Your task to perform on an android device: Open the stopwatch Image 0: 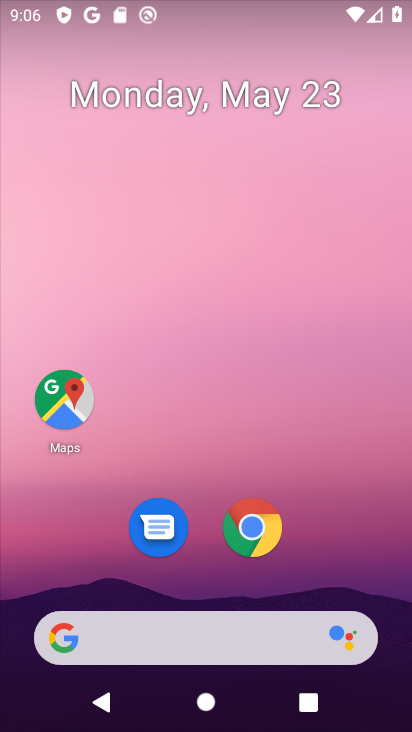
Step 0: drag from (350, 583) to (298, 200)
Your task to perform on an android device: Open the stopwatch Image 1: 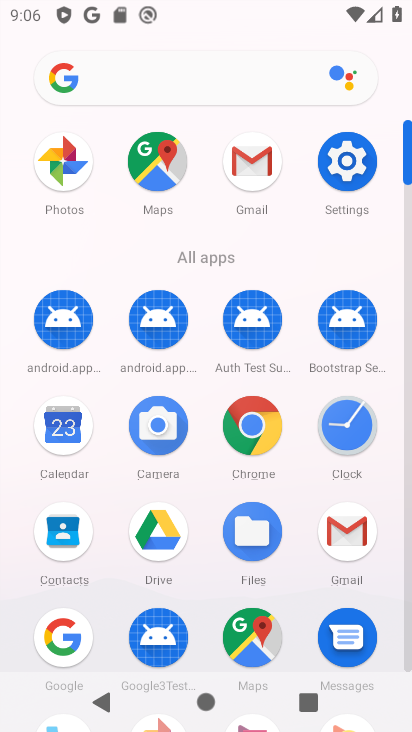
Step 1: click (358, 438)
Your task to perform on an android device: Open the stopwatch Image 2: 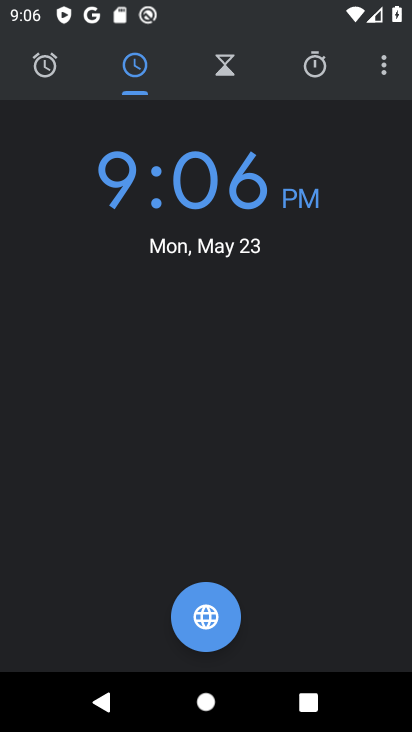
Step 2: click (317, 86)
Your task to perform on an android device: Open the stopwatch Image 3: 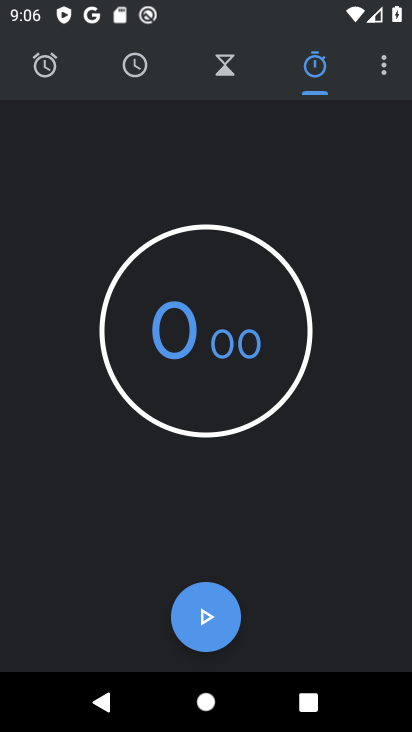
Step 3: click (219, 627)
Your task to perform on an android device: Open the stopwatch Image 4: 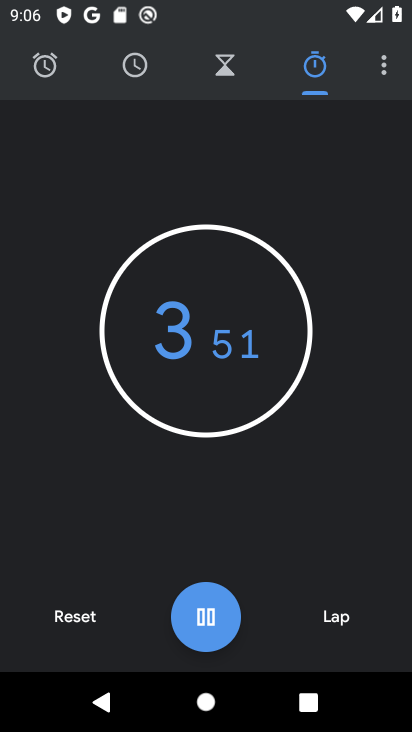
Step 4: click (210, 609)
Your task to perform on an android device: Open the stopwatch Image 5: 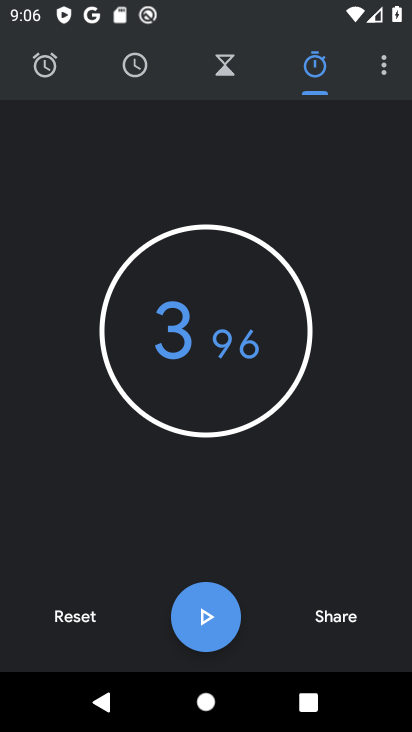
Step 5: task complete